Your task to perform on an android device: set the timer Image 0: 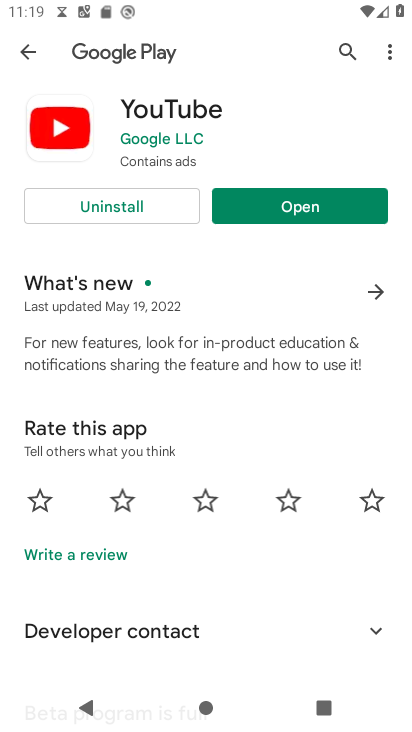
Step 0: press home button
Your task to perform on an android device: set the timer Image 1: 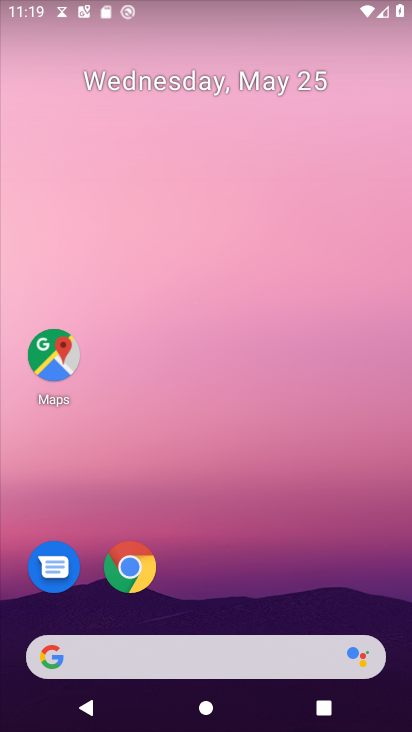
Step 1: drag from (213, 592) to (255, 26)
Your task to perform on an android device: set the timer Image 2: 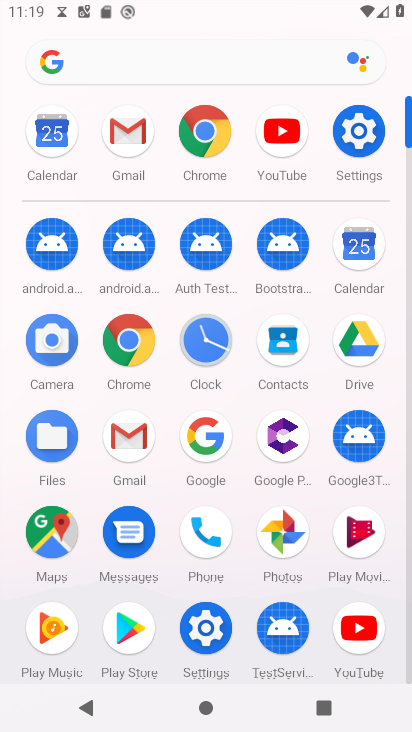
Step 2: click (218, 341)
Your task to perform on an android device: set the timer Image 3: 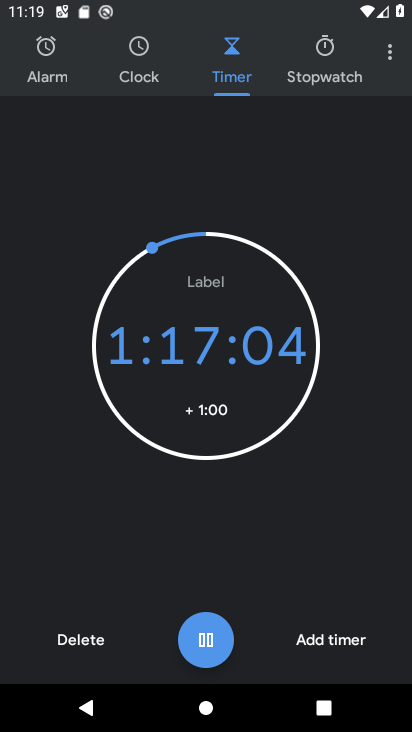
Step 3: task complete